Your task to perform on an android device: turn off data saver in the chrome app Image 0: 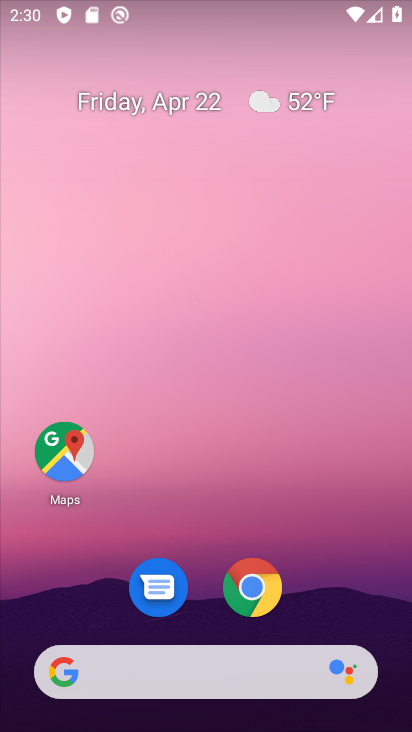
Step 0: click (242, 590)
Your task to perform on an android device: turn off data saver in the chrome app Image 1: 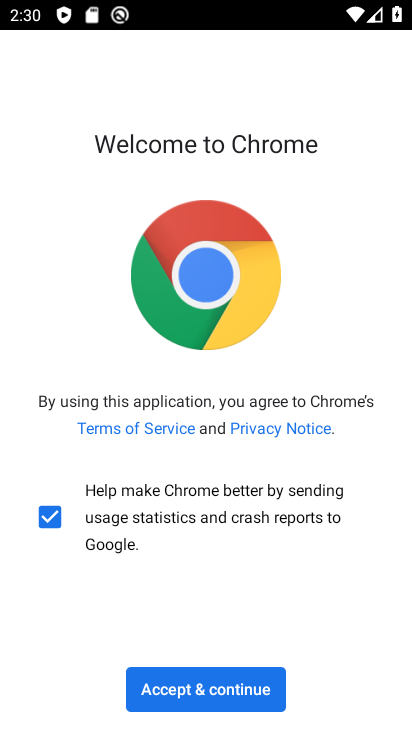
Step 1: click (246, 679)
Your task to perform on an android device: turn off data saver in the chrome app Image 2: 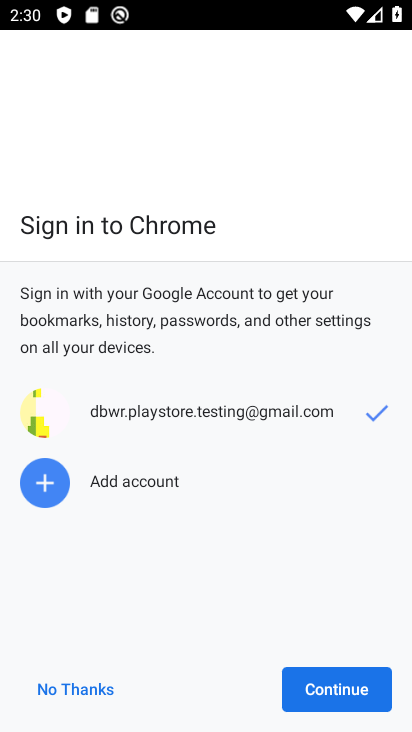
Step 2: click (313, 687)
Your task to perform on an android device: turn off data saver in the chrome app Image 3: 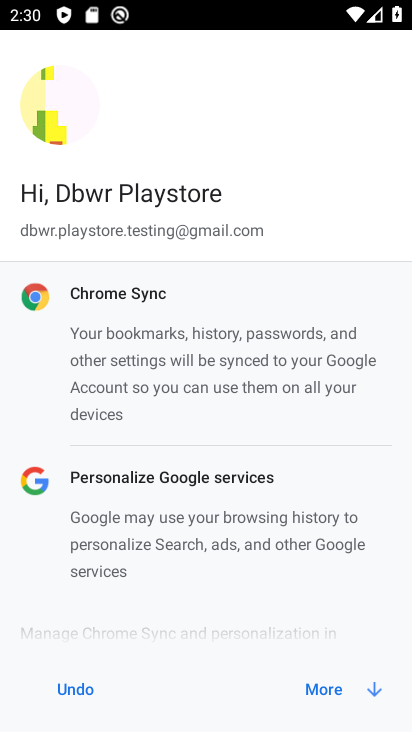
Step 3: click (313, 687)
Your task to perform on an android device: turn off data saver in the chrome app Image 4: 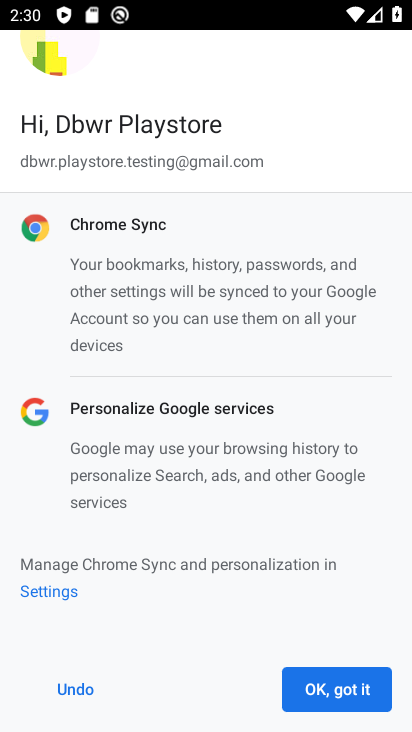
Step 4: click (313, 687)
Your task to perform on an android device: turn off data saver in the chrome app Image 5: 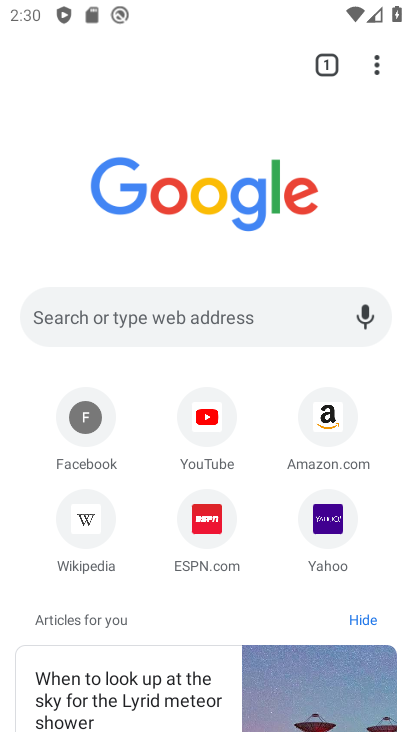
Step 5: click (379, 75)
Your task to perform on an android device: turn off data saver in the chrome app Image 6: 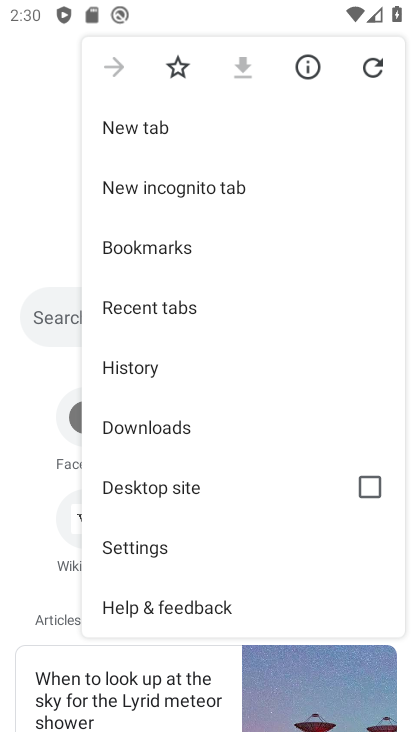
Step 6: click (216, 539)
Your task to perform on an android device: turn off data saver in the chrome app Image 7: 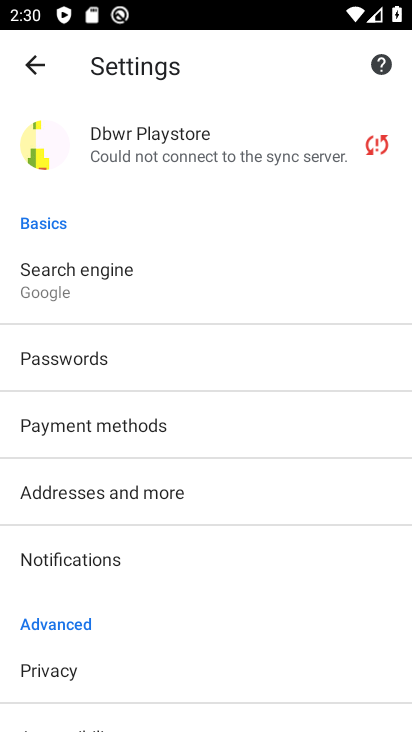
Step 7: drag from (213, 684) to (223, 189)
Your task to perform on an android device: turn off data saver in the chrome app Image 8: 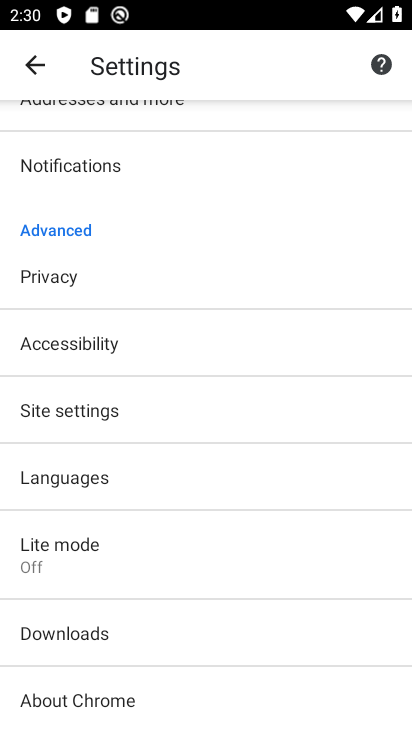
Step 8: click (158, 550)
Your task to perform on an android device: turn off data saver in the chrome app Image 9: 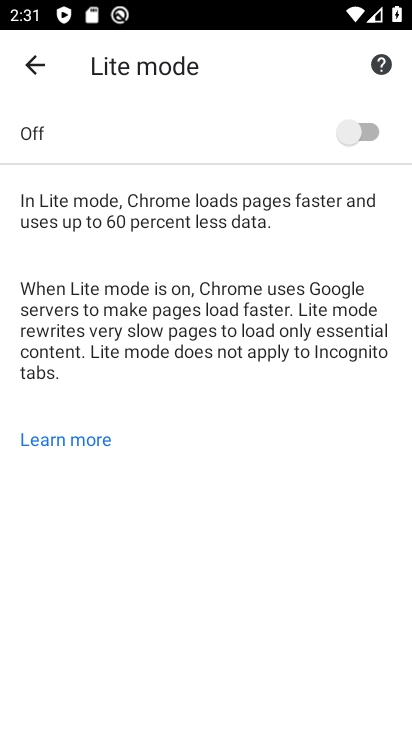
Step 9: task complete